Your task to perform on an android device: Open Android settings Image 0: 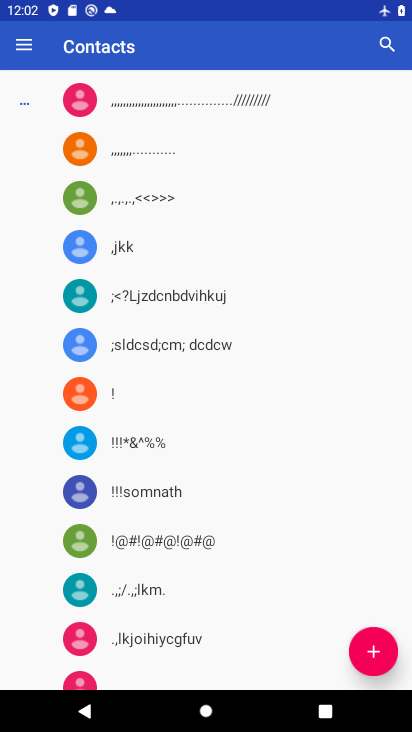
Step 0: press home button
Your task to perform on an android device: Open Android settings Image 1: 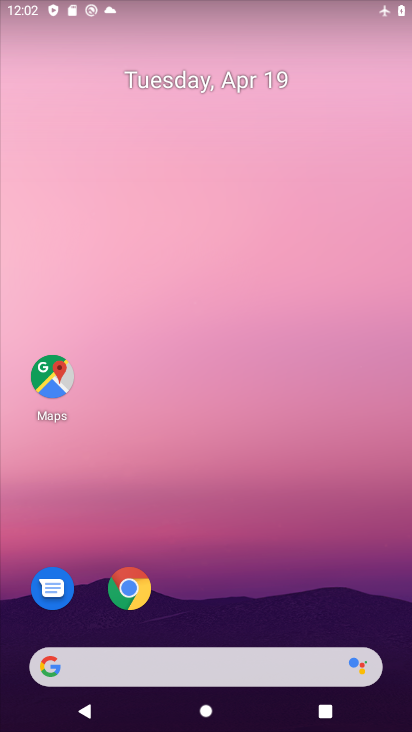
Step 1: drag from (271, 323) to (280, 41)
Your task to perform on an android device: Open Android settings Image 2: 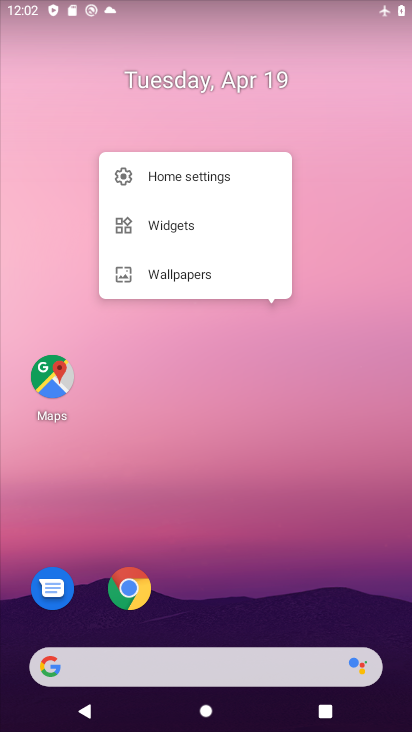
Step 2: drag from (366, 585) to (377, 132)
Your task to perform on an android device: Open Android settings Image 3: 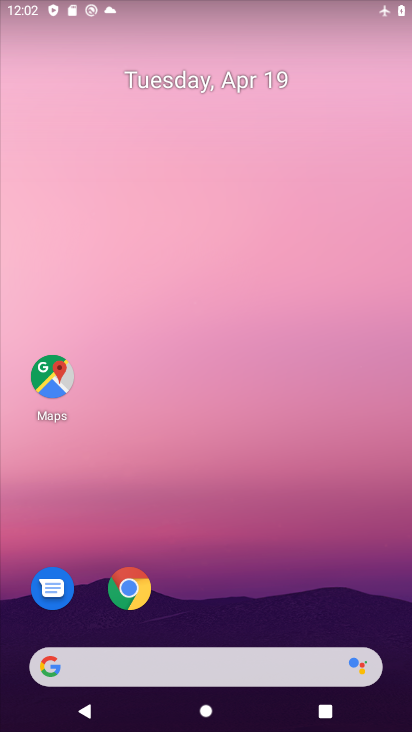
Step 3: drag from (286, 560) to (294, 83)
Your task to perform on an android device: Open Android settings Image 4: 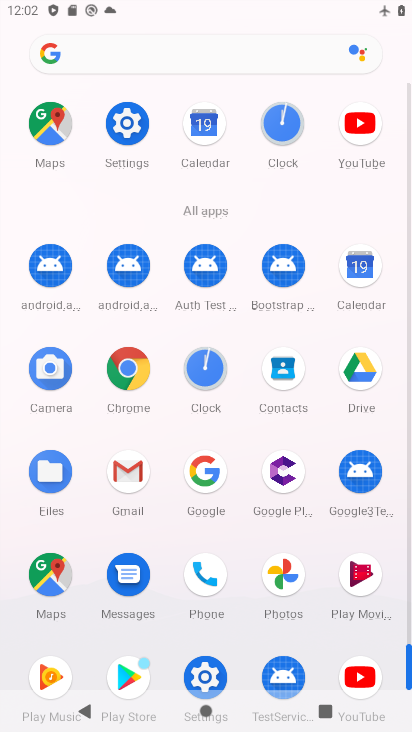
Step 4: click (122, 132)
Your task to perform on an android device: Open Android settings Image 5: 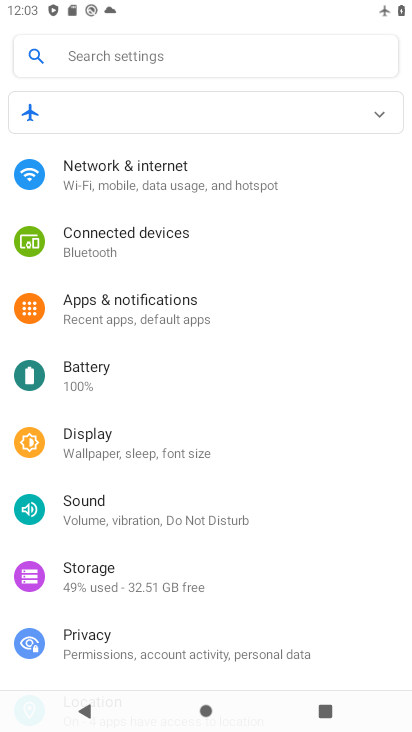
Step 5: drag from (356, 558) to (352, 223)
Your task to perform on an android device: Open Android settings Image 6: 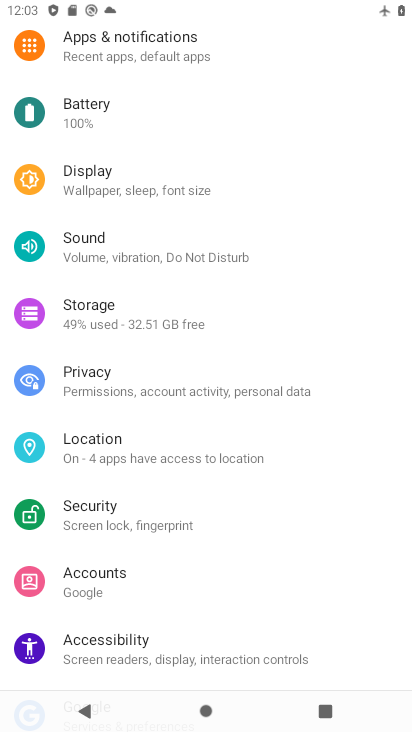
Step 6: drag from (364, 267) to (334, 529)
Your task to perform on an android device: Open Android settings Image 7: 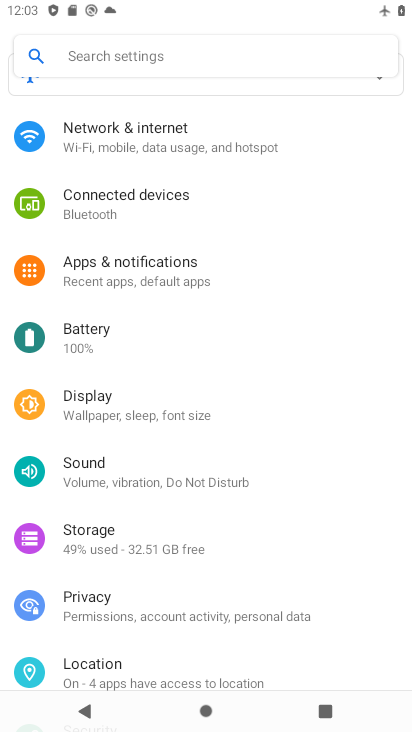
Step 7: drag from (346, 273) to (351, 530)
Your task to perform on an android device: Open Android settings Image 8: 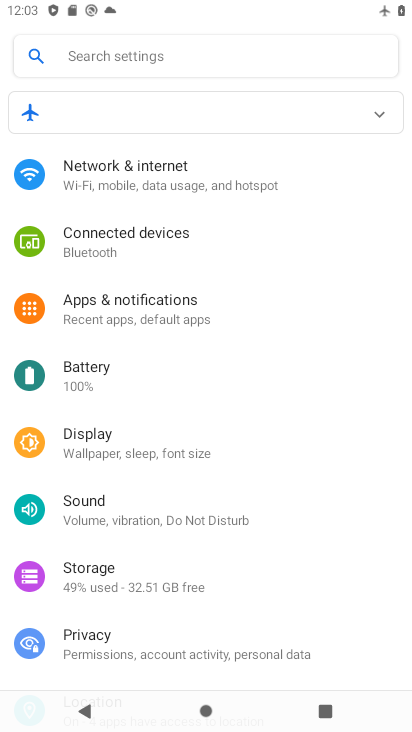
Step 8: drag from (341, 538) to (362, 210)
Your task to perform on an android device: Open Android settings Image 9: 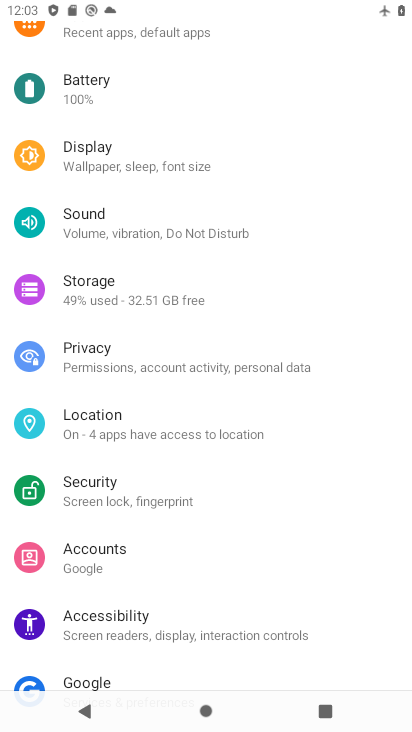
Step 9: drag from (322, 569) to (346, 276)
Your task to perform on an android device: Open Android settings Image 10: 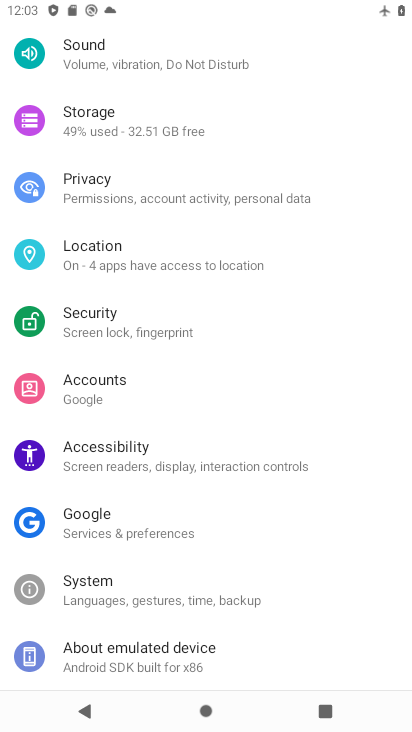
Step 10: click (176, 592)
Your task to perform on an android device: Open Android settings Image 11: 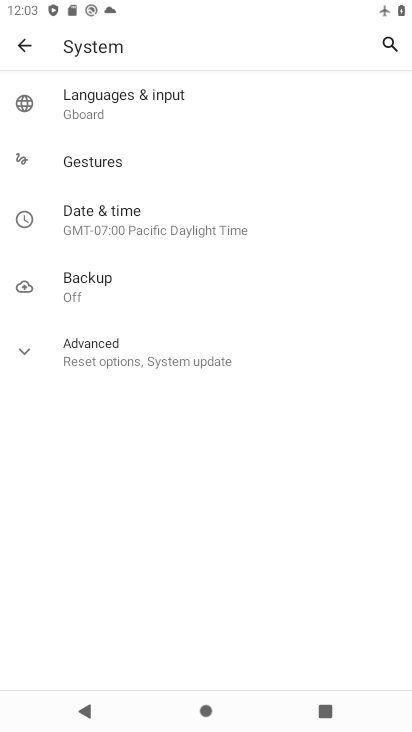
Step 11: click (139, 357)
Your task to perform on an android device: Open Android settings Image 12: 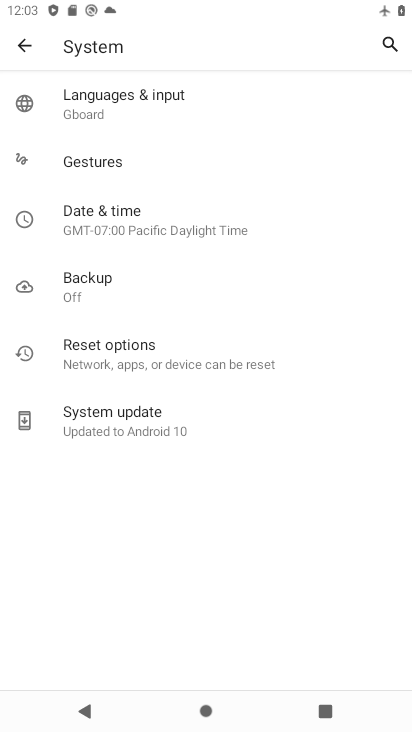
Step 12: click (116, 422)
Your task to perform on an android device: Open Android settings Image 13: 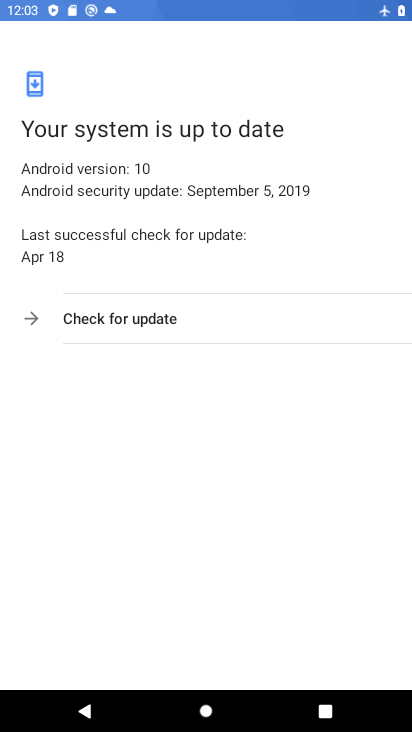
Step 13: task complete